Your task to perform on an android device: Go to Google Image 0: 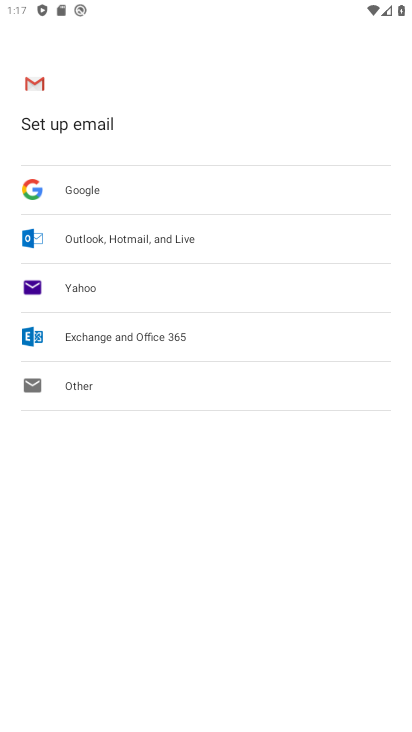
Step 0: task complete